Your task to perform on an android device: open a bookmark in the chrome app Image 0: 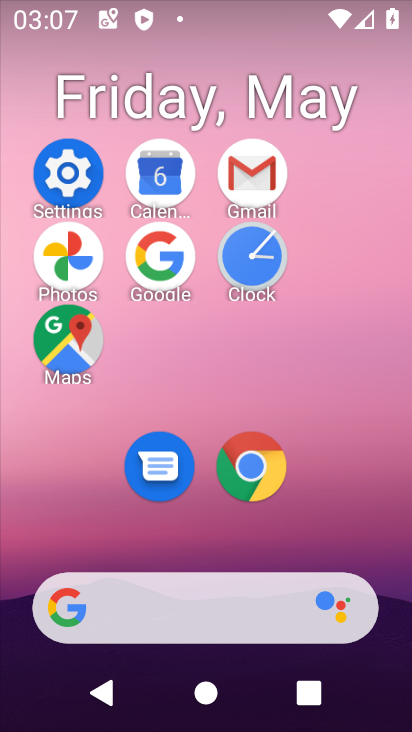
Step 0: click (252, 474)
Your task to perform on an android device: open a bookmark in the chrome app Image 1: 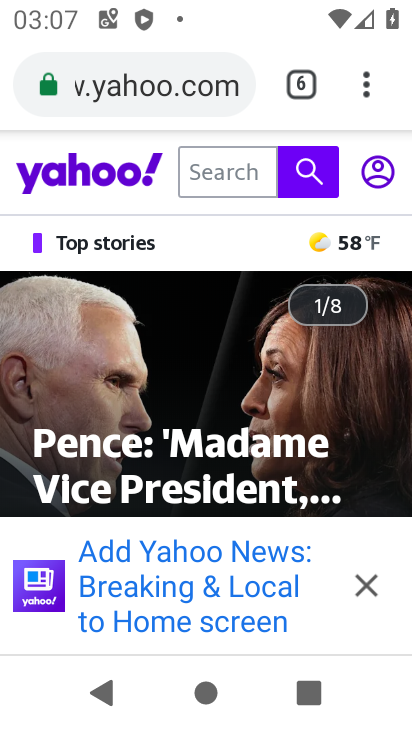
Step 1: click (356, 87)
Your task to perform on an android device: open a bookmark in the chrome app Image 2: 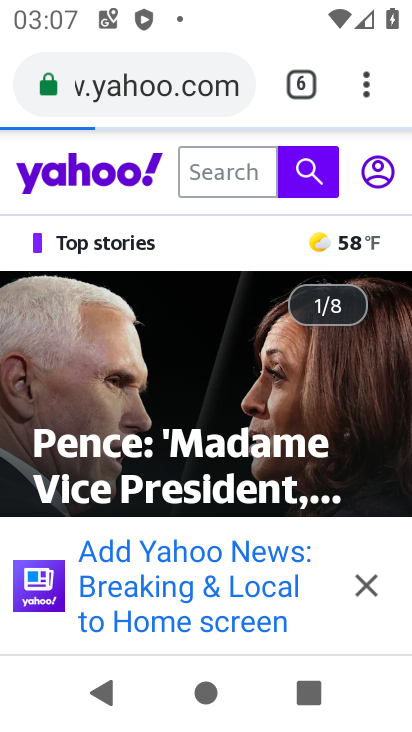
Step 2: click (386, 84)
Your task to perform on an android device: open a bookmark in the chrome app Image 3: 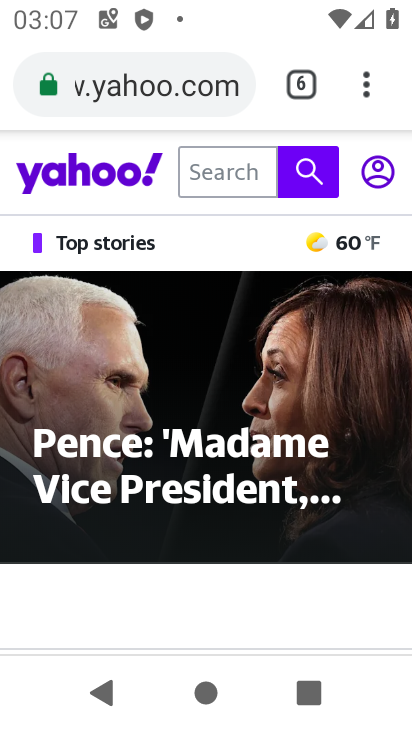
Step 3: click (386, 84)
Your task to perform on an android device: open a bookmark in the chrome app Image 4: 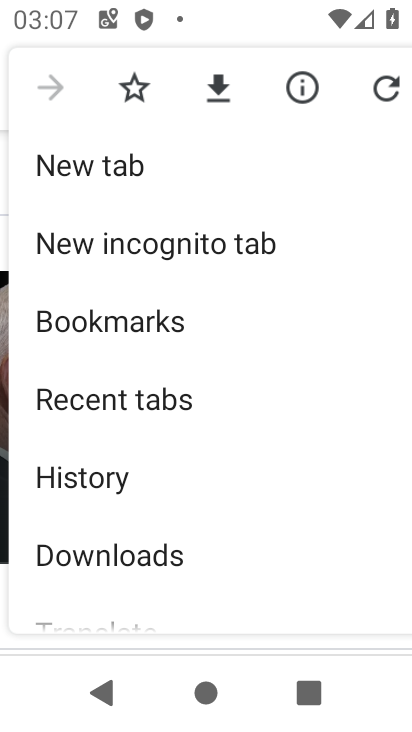
Step 4: click (157, 321)
Your task to perform on an android device: open a bookmark in the chrome app Image 5: 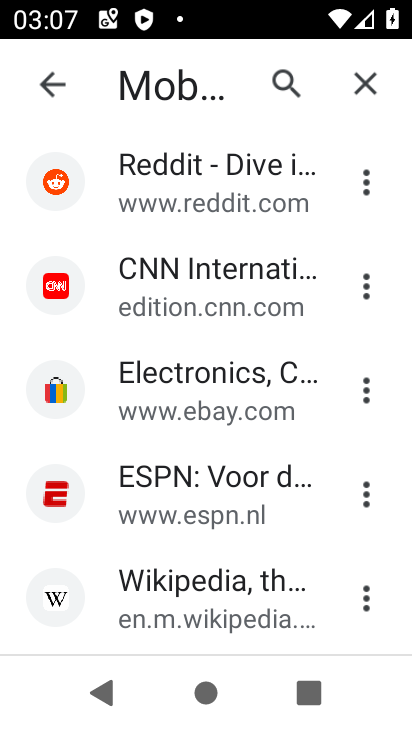
Step 5: task complete